Your task to perform on an android device: see creations saved in the google photos Image 0: 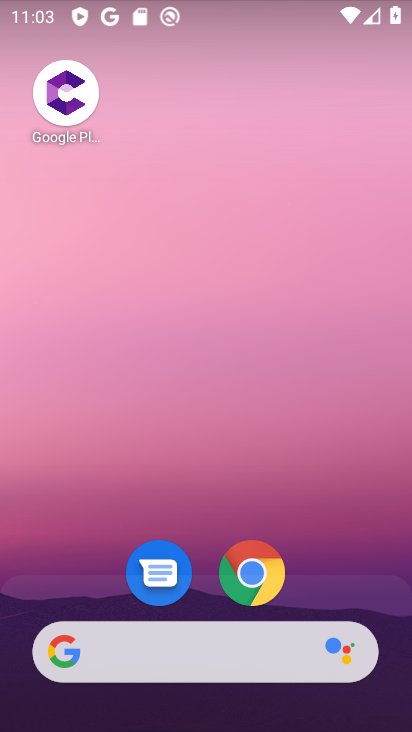
Step 0: press home button
Your task to perform on an android device: see creations saved in the google photos Image 1: 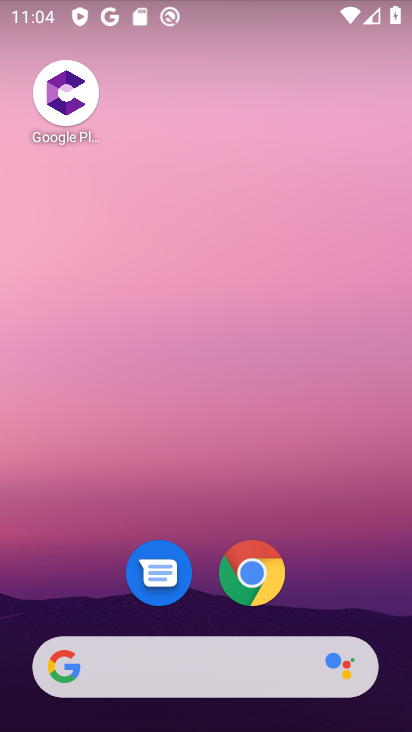
Step 1: drag from (140, 663) to (266, 181)
Your task to perform on an android device: see creations saved in the google photos Image 2: 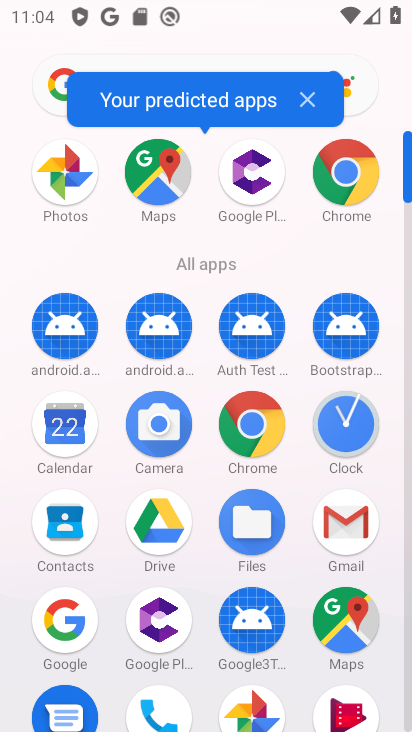
Step 2: click (69, 178)
Your task to perform on an android device: see creations saved in the google photos Image 3: 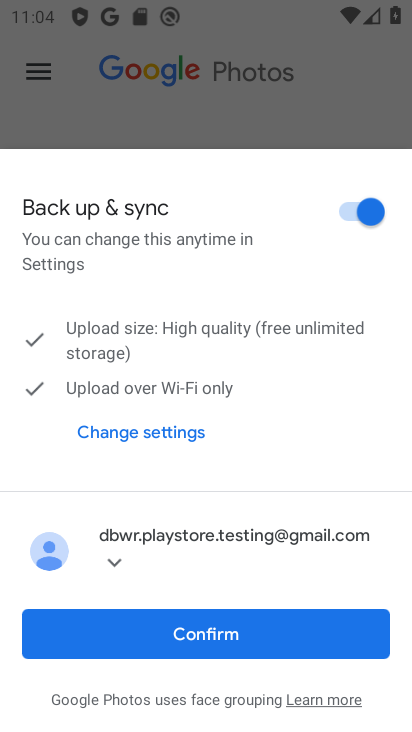
Step 3: click (208, 636)
Your task to perform on an android device: see creations saved in the google photos Image 4: 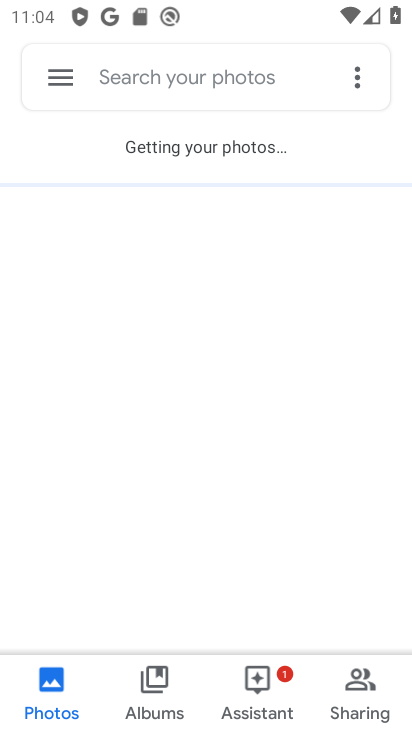
Step 4: click (170, 711)
Your task to perform on an android device: see creations saved in the google photos Image 5: 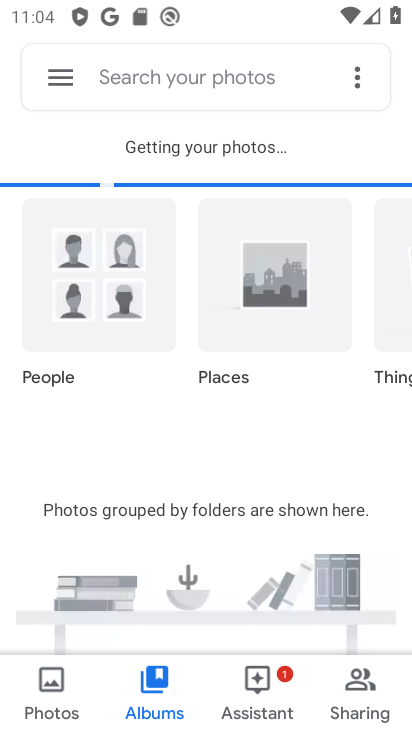
Step 5: click (194, 73)
Your task to perform on an android device: see creations saved in the google photos Image 6: 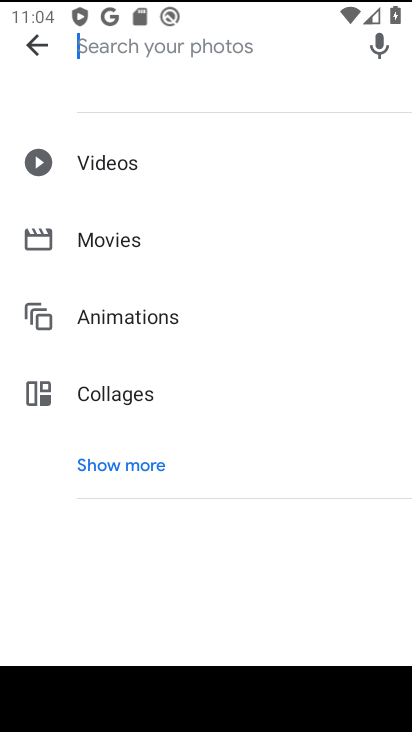
Step 6: click (130, 463)
Your task to perform on an android device: see creations saved in the google photos Image 7: 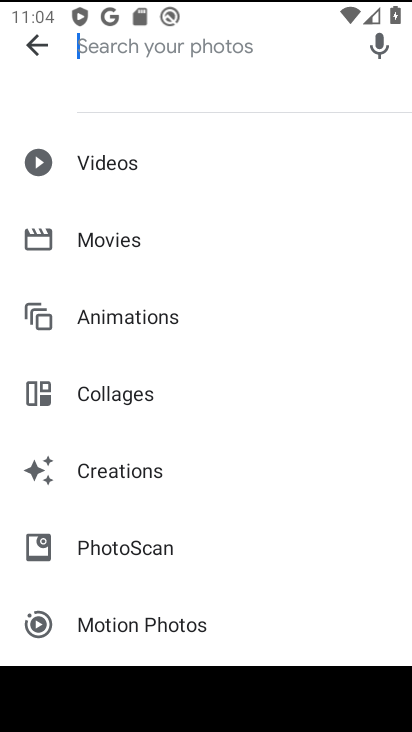
Step 7: click (133, 475)
Your task to perform on an android device: see creations saved in the google photos Image 8: 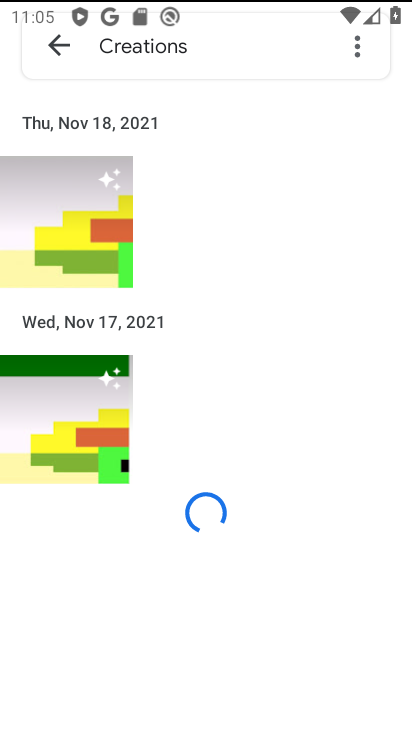
Step 8: task complete